Your task to perform on an android device: Open Youtube and go to the subscriptions tab Image 0: 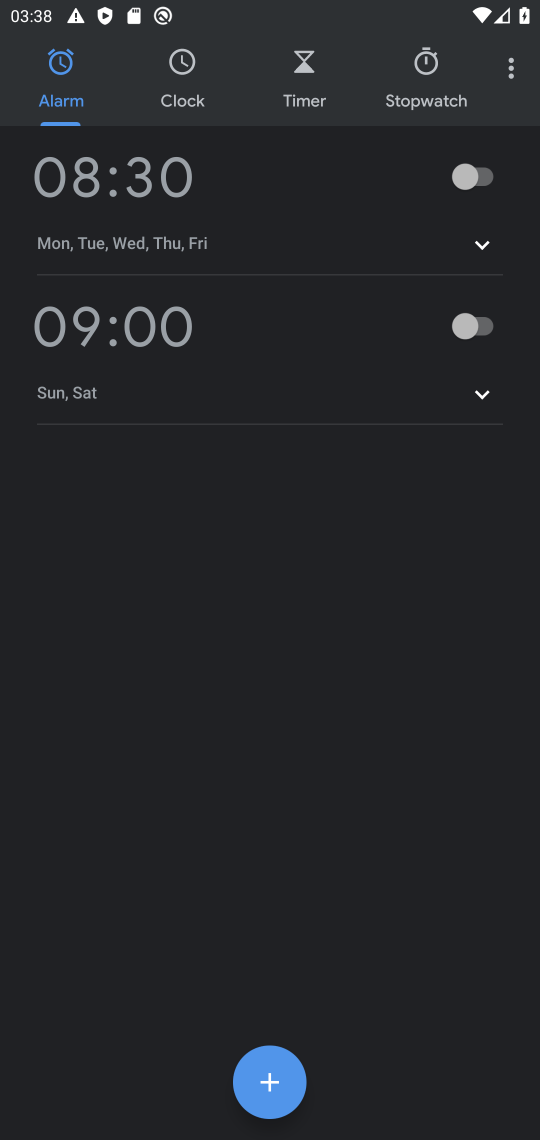
Step 0: press home button
Your task to perform on an android device: Open Youtube and go to the subscriptions tab Image 1: 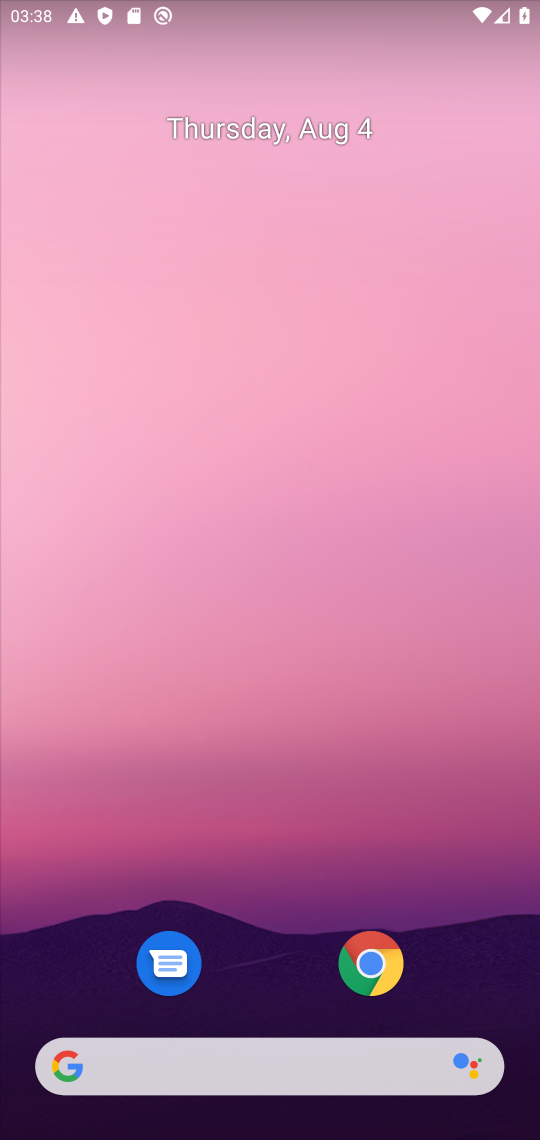
Step 1: drag from (268, 982) to (293, 124)
Your task to perform on an android device: Open Youtube and go to the subscriptions tab Image 2: 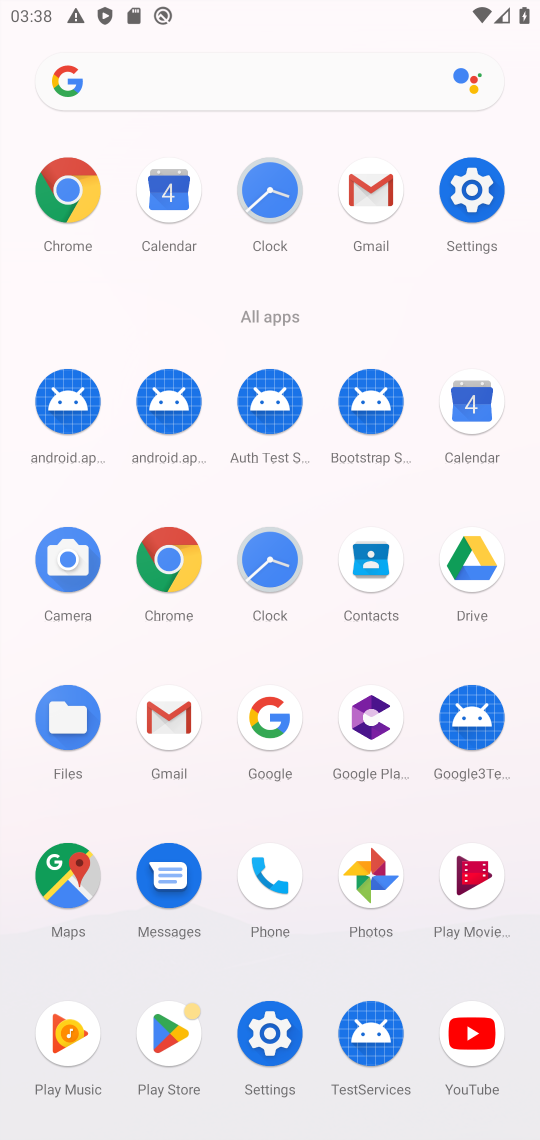
Step 2: click (480, 1042)
Your task to perform on an android device: Open Youtube and go to the subscriptions tab Image 3: 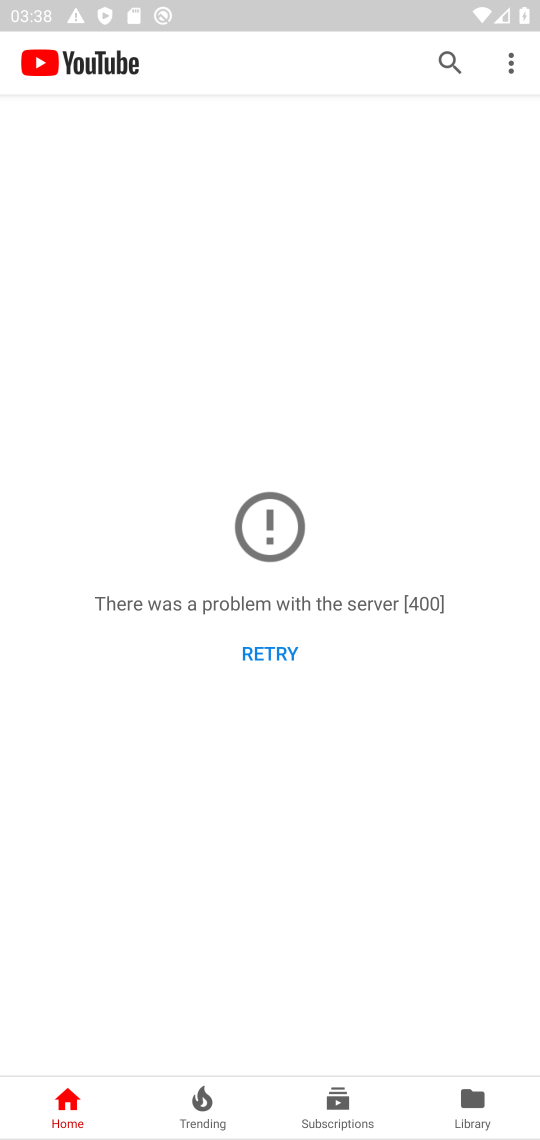
Step 3: click (337, 1112)
Your task to perform on an android device: Open Youtube and go to the subscriptions tab Image 4: 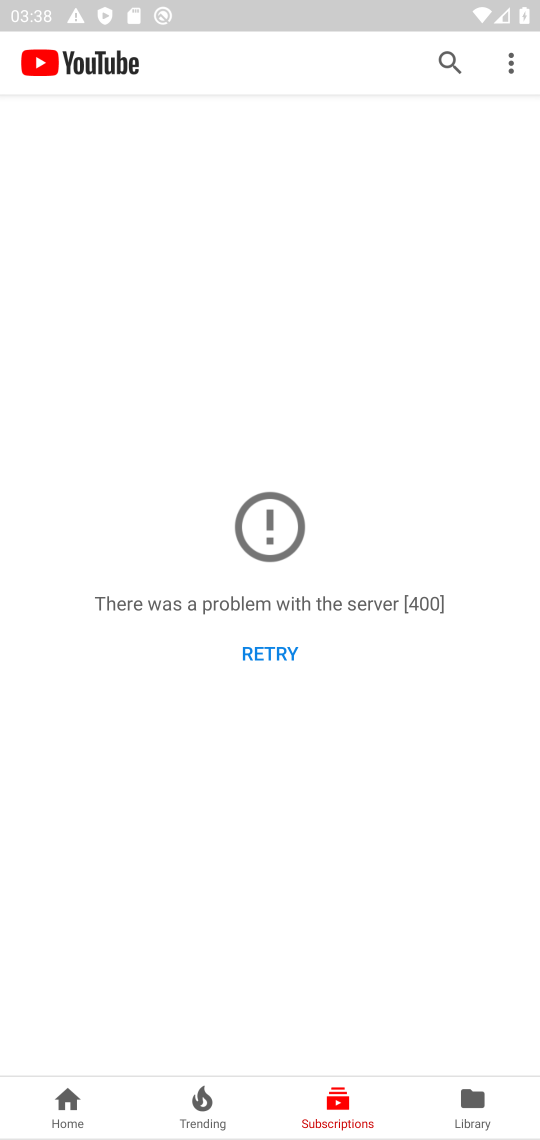
Step 4: task complete